Your task to perform on an android device: add a contact Image 0: 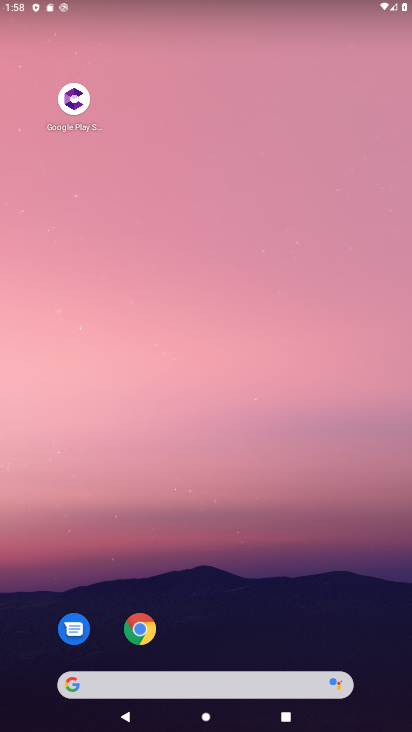
Step 0: drag from (219, 625) to (219, 252)
Your task to perform on an android device: add a contact Image 1: 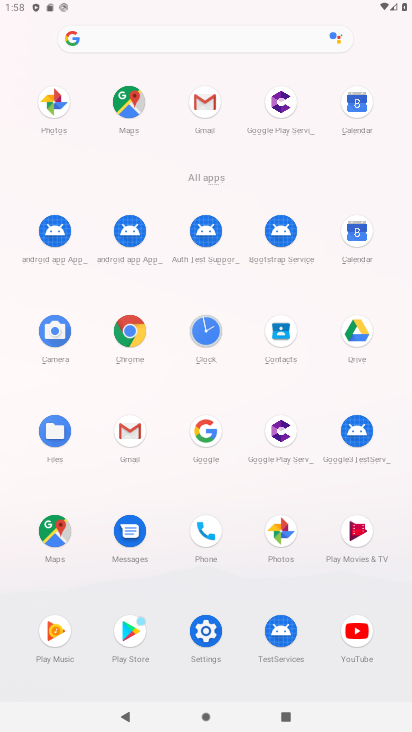
Step 1: click (277, 349)
Your task to perform on an android device: add a contact Image 2: 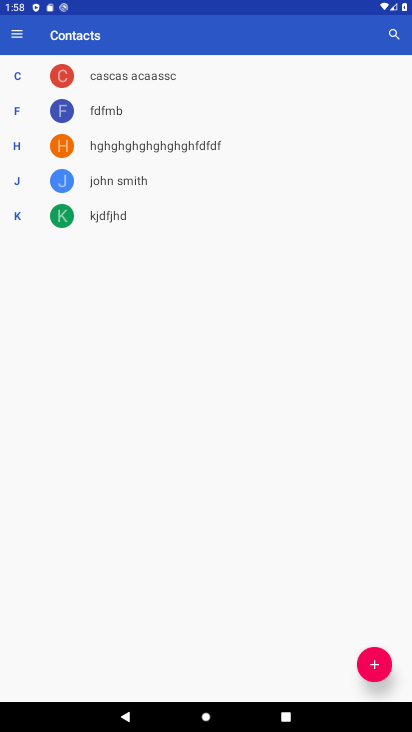
Step 2: click (366, 659)
Your task to perform on an android device: add a contact Image 3: 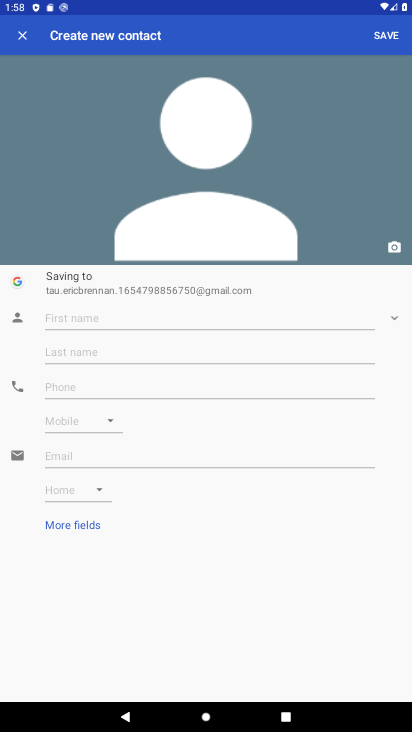
Step 3: click (86, 320)
Your task to perform on an android device: add a contact Image 4: 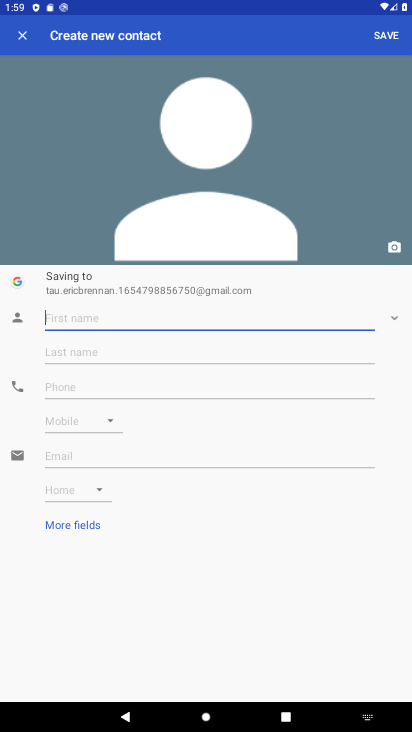
Step 4: type "jvj"
Your task to perform on an android device: add a contact Image 5: 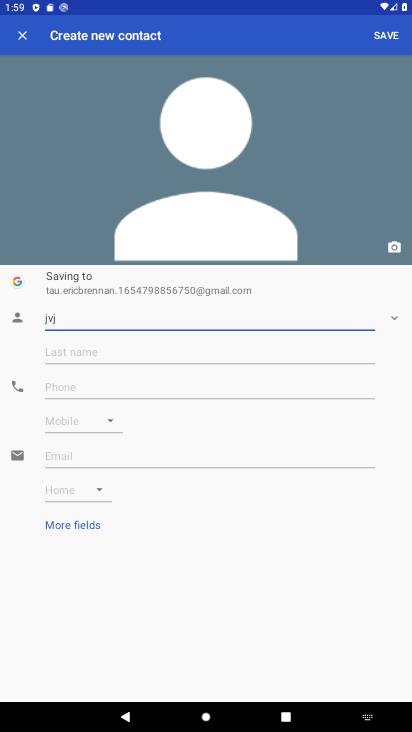
Step 5: click (94, 391)
Your task to perform on an android device: add a contact Image 6: 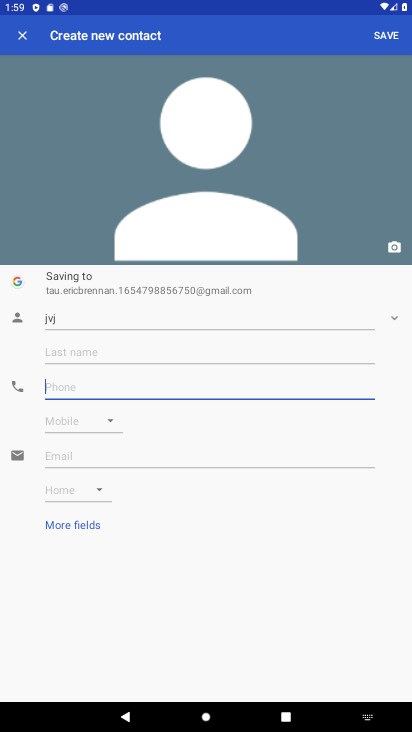
Step 6: type "887985579"
Your task to perform on an android device: add a contact Image 7: 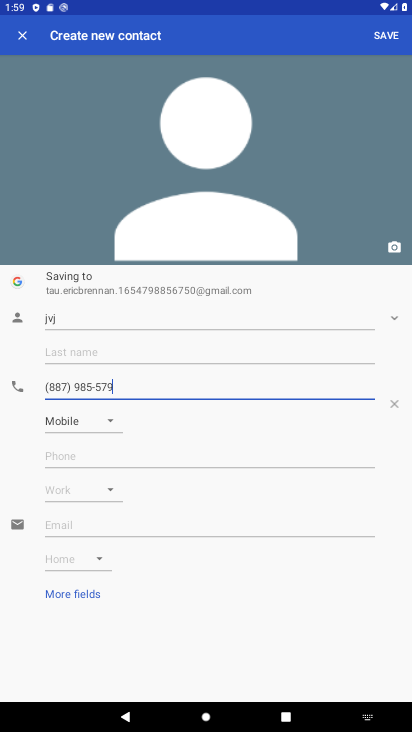
Step 7: click (389, 39)
Your task to perform on an android device: add a contact Image 8: 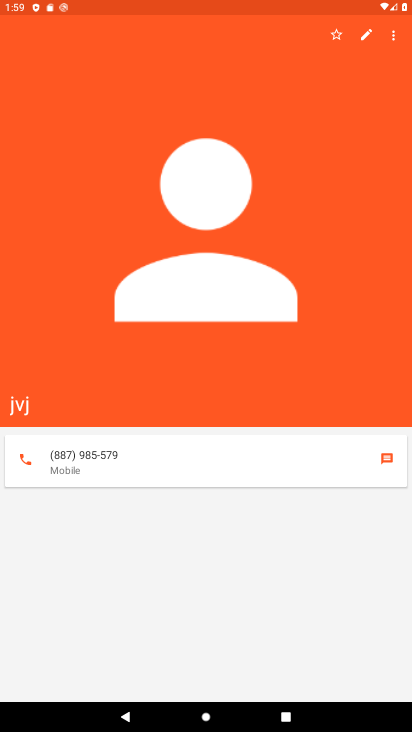
Step 8: task complete